Your task to perform on an android device: Open calendar and show me the fourth week of next month Image 0: 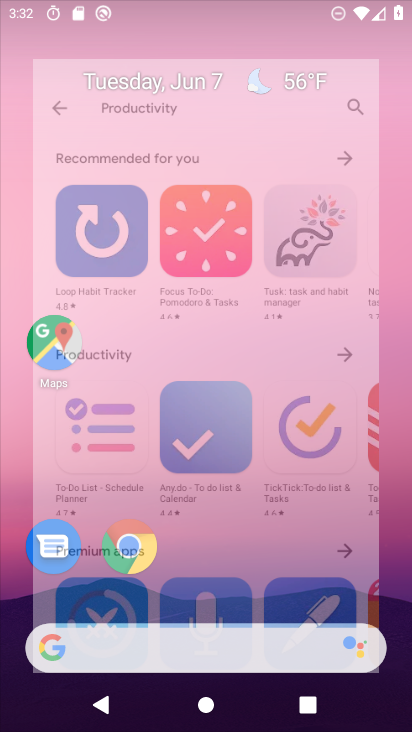
Step 0: drag from (234, 161) to (225, 24)
Your task to perform on an android device: Open calendar and show me the fourth week of next month Image 1: 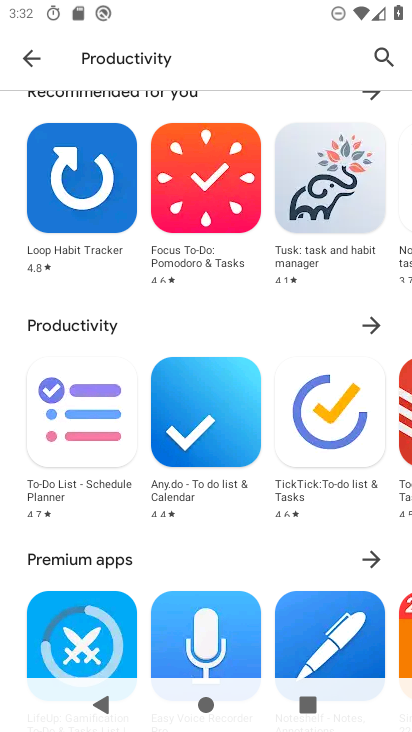
Step 1: press back button
Your task to perform on an android device: Open calendar and show me the fourth week of next month Image 2: 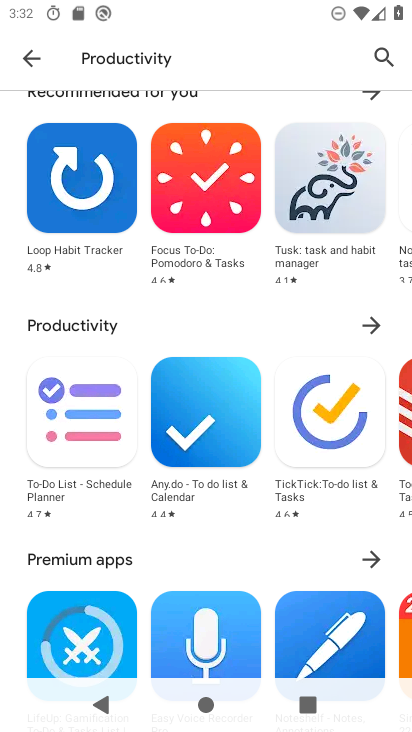
Step 2: press home button
Your task to perform on an android device: Open calendar and show me the fourth week of next month Image 3: 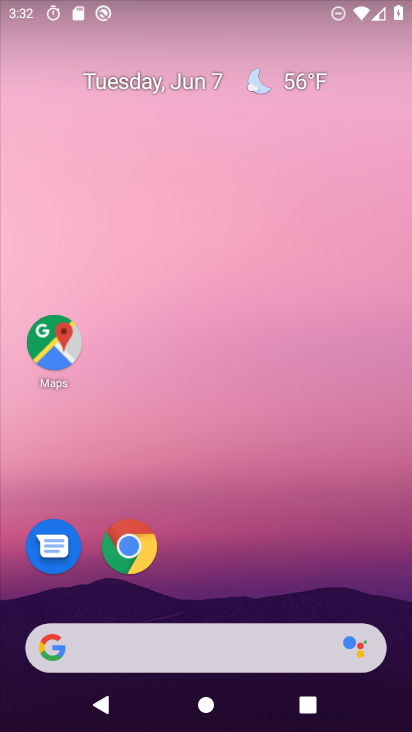
Step 3: drag from (229, 577) to (221, 16)
Your task to perform on an android device: Open calendar and show me the fourth week of next month Image 4: 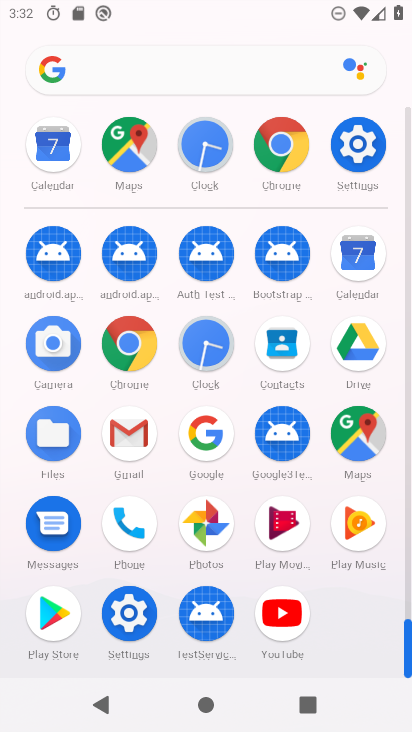
Step 4: click (356, 253)
Your task to perform on an android device: Open calendar and show me the fourth week of next month Image 5: 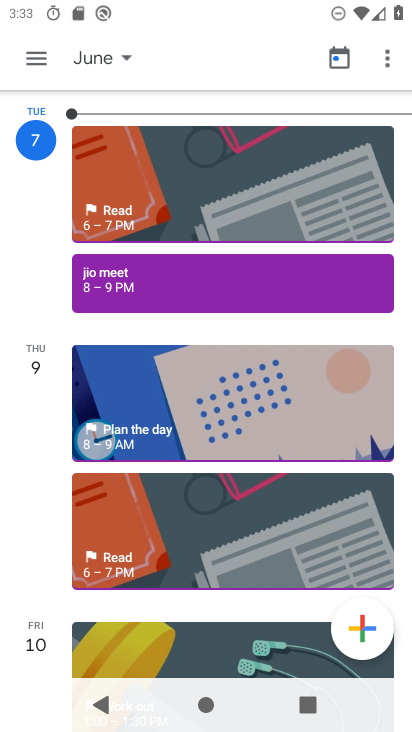
Step 5: click (36, 66)
Your task to perform on an android device: Open calendar and show me the fourth week of next month Image 6: 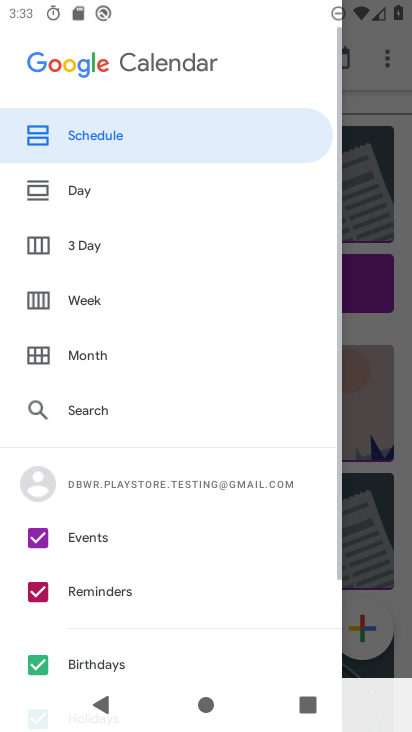
Step 6: click (362, 90)
Your task to perform on an android device: Open calendar and show me the fourth week of next month Image 7: 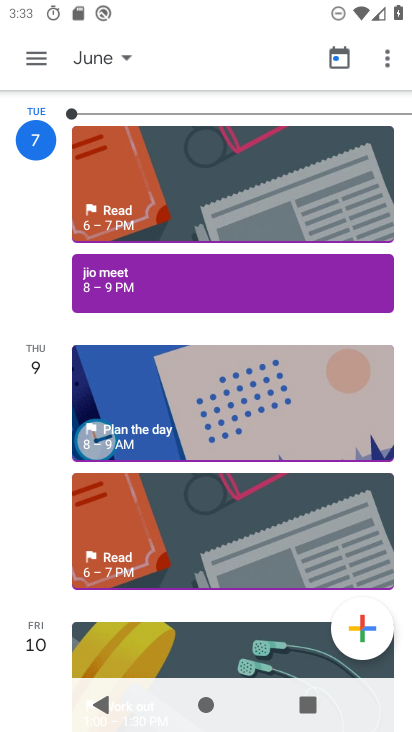
Step 7: click (93, 60)
Your task to perform on an android device: Open calendar and show me the fourth week of next month Image 8: 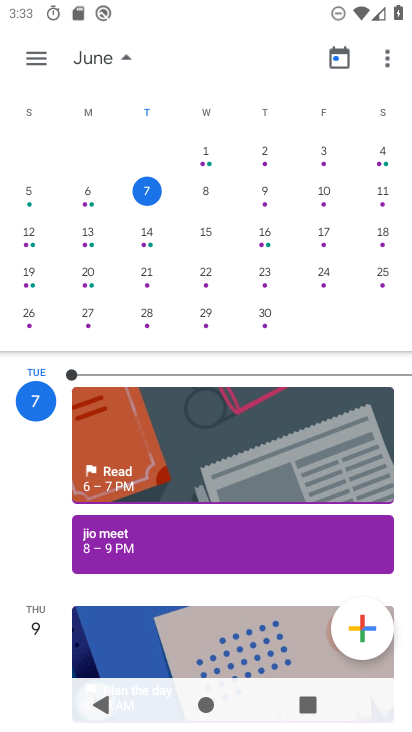
Step 8: drag from (373, 251) to (4, 245)
Your task to perform on an android device: Open calendar and show me the fourth week of next month Image 9: 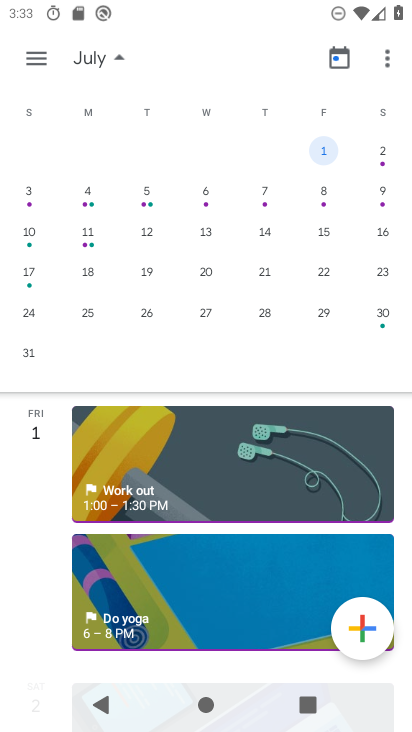
Step 9: click (31, 312)
Your task to perform on an android device: Open calendar and show me the fourth week of next month Image 10: 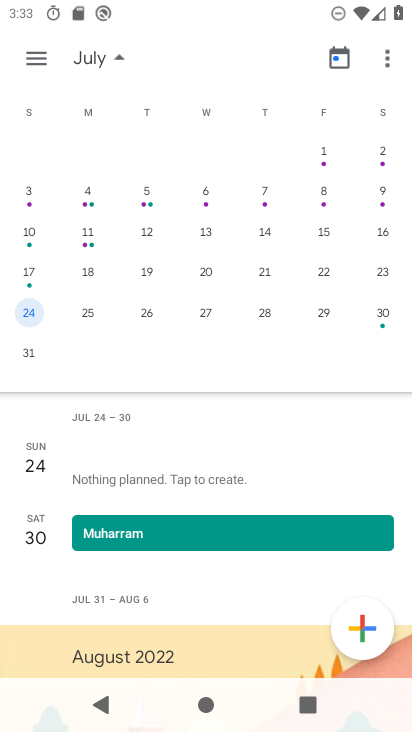
Step 10: click (23, 39)
Your task to perform on an android device: Open calendar and show me the fourth week of next month Image 11: 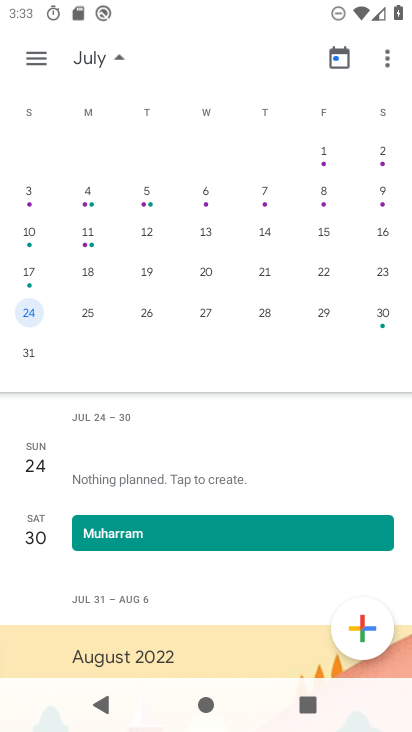
Step 11: click (39, 55)
Your task to perform on an android device: Open calendar and show me the fourth week of next month Image 12: 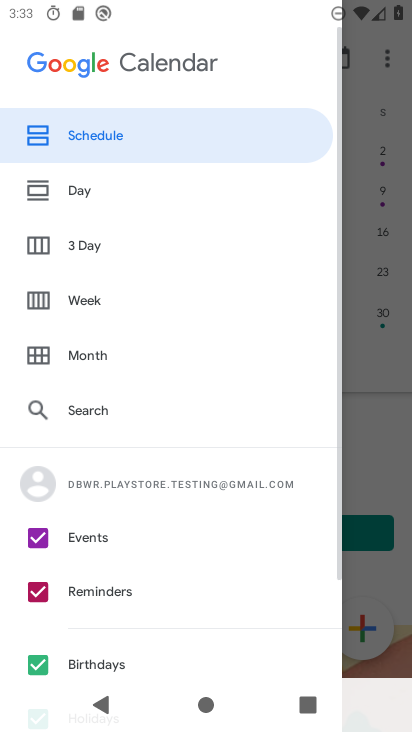
Step 12: click (102, 305)
Your task to perform on an android device: Open calendar and show me the fourth week of next month Image 13: 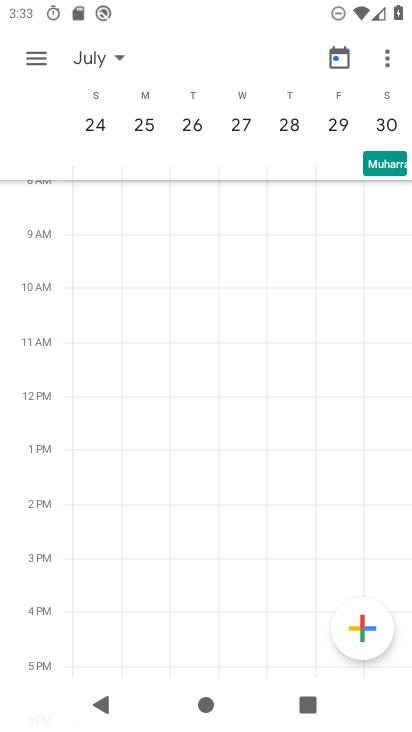
Step 13: task complete